Your task to perform on an android device: Open Android settings Image 0: 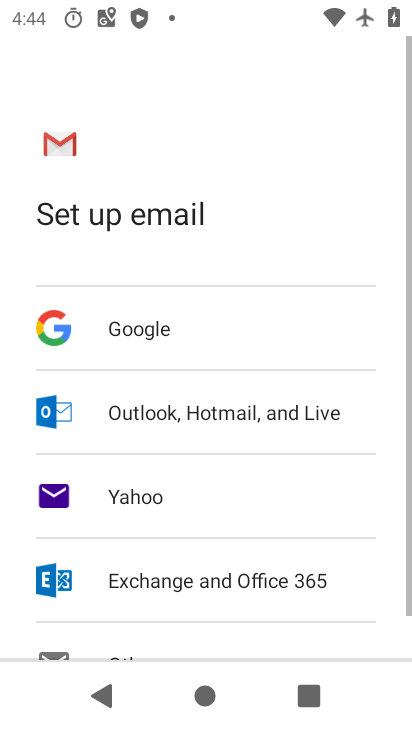
Step 0: press home button
Your task to perform on an android device: Open Android settings Image 1: 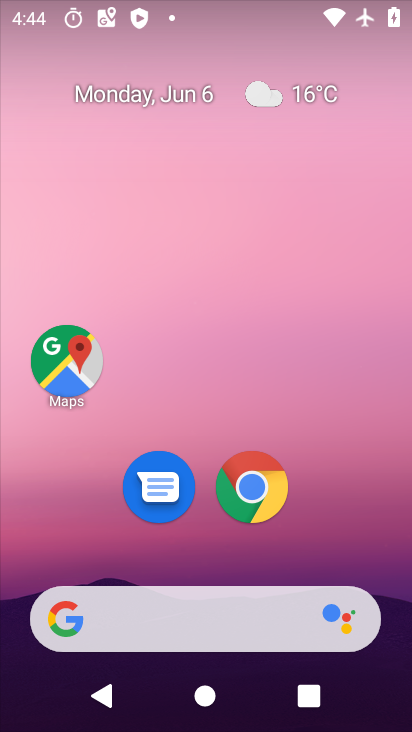
Step 1: drag from (323, 495) to (316, 23)
Your task to perform on an android device: Open Android settings Image 2: 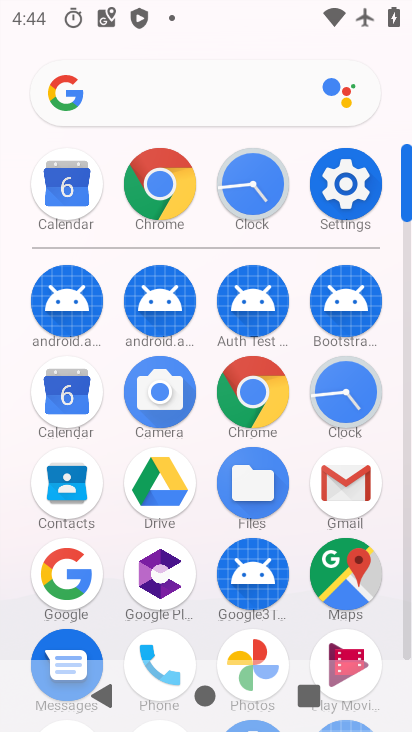
Step 2: click (334, 173)
Your task to perform on an android device: Open Android settings Image 3: 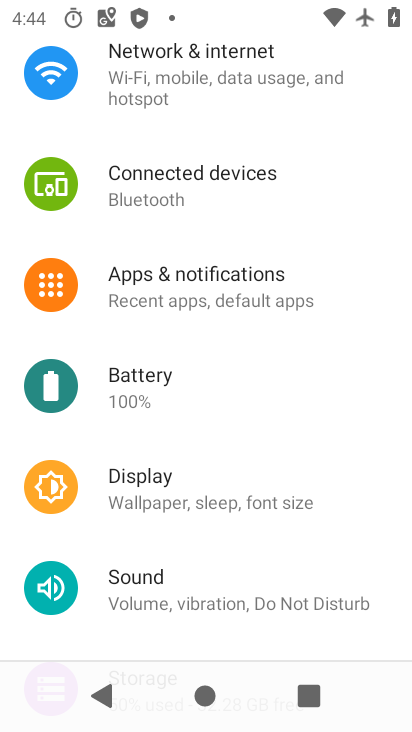
Step 3: task complete